Your task to perform on an android device: Turn off the flashlight Image 0: 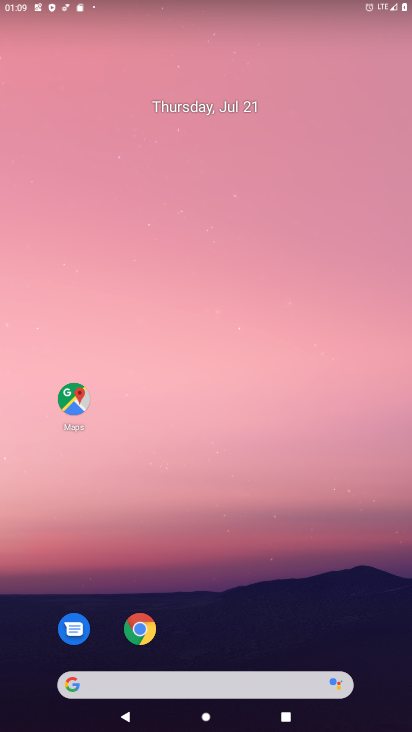
Step 0: drag from (283, 578) to (232, 18)
Your task to perform on an android device: Turn off the flashlight Image 1: 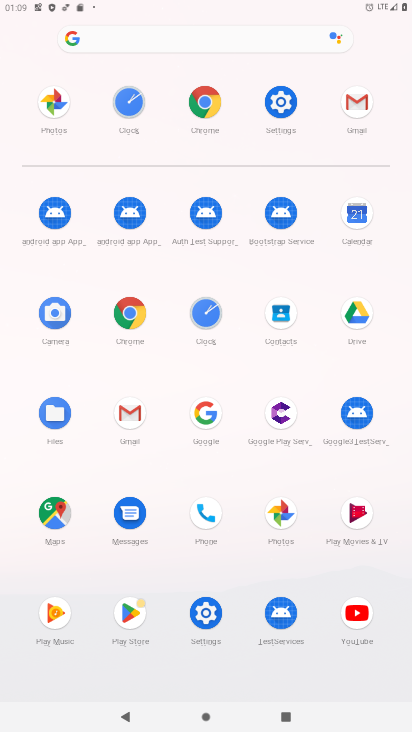
Step 1: click (280, 109)
Your task to perform on an android device: Turn off the flashlight Image 2: 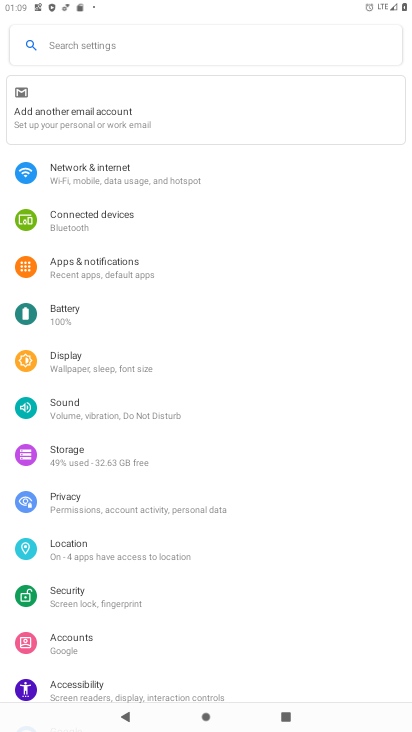
Step 2: click (92, 369)
Your task to perform on an android device: Turn off the flashlight Image 3: 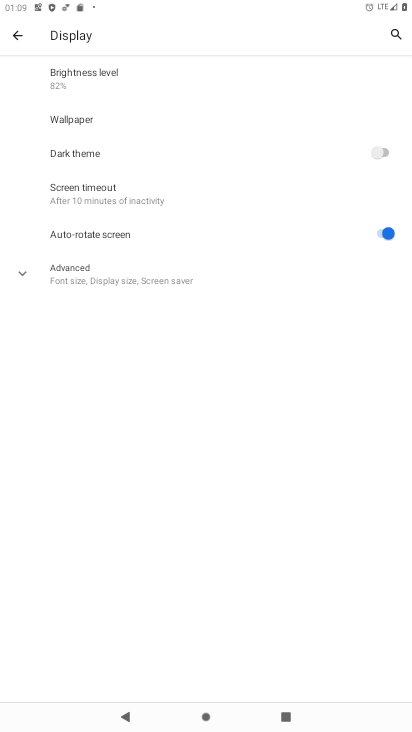
Step 3: task complete